Your task to perform on an android device: Open the phone app and click the voicemail tab. Image 0: 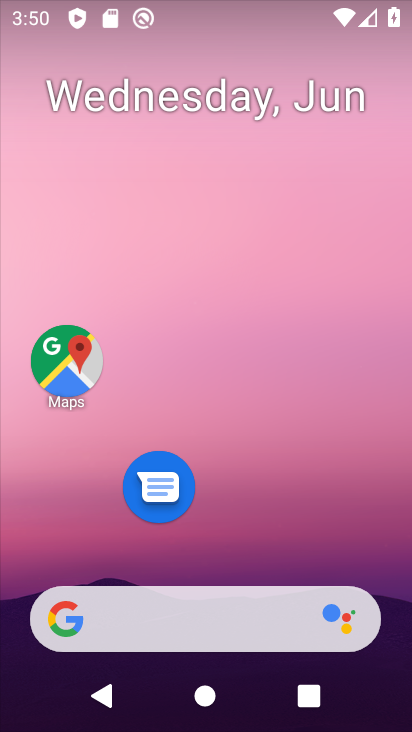
Step 0: drag from (204, 555) to (292, 83)
Your task to perform on an android device: Open the phone app and click the voicemail tab. Image 1: 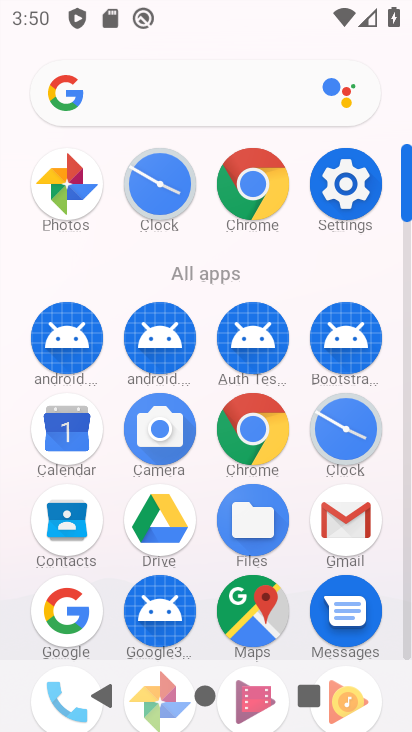
Step 1: drag from (123, 531) to (146, 296)
Your task to perform on an android device: Open the phone app and click the voicemail tab. Image 2: 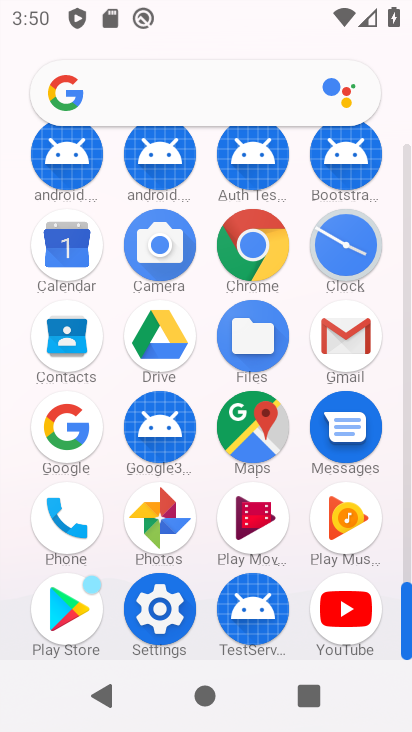
Step 2: click (71, 522)
Your task to perform on an android device: Open the phone app and click the voicemail tab. Image 3: 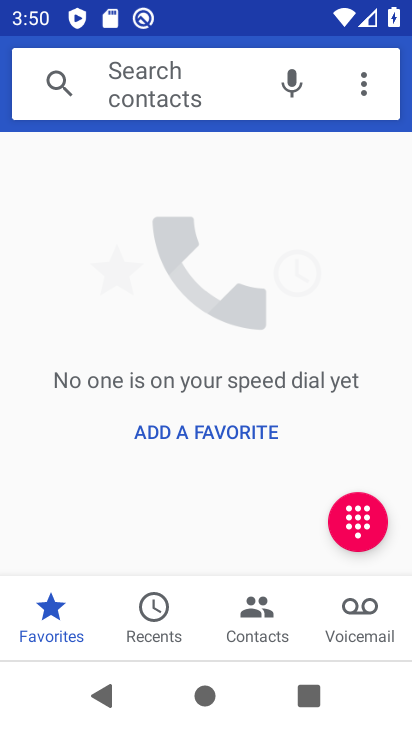
Step 3: click (367, 626)
Your task to perform on an android device: Open the phone app and click the voicemail tab. Image 4: 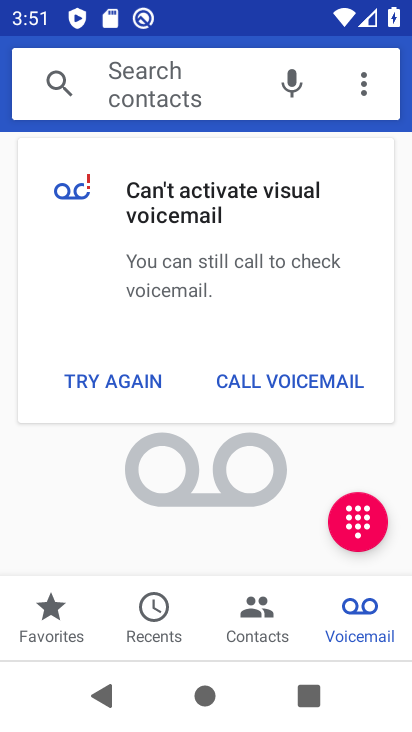
Step 4: task complete